Your task to perform on an android device: star an email in the gmail app Image 0: 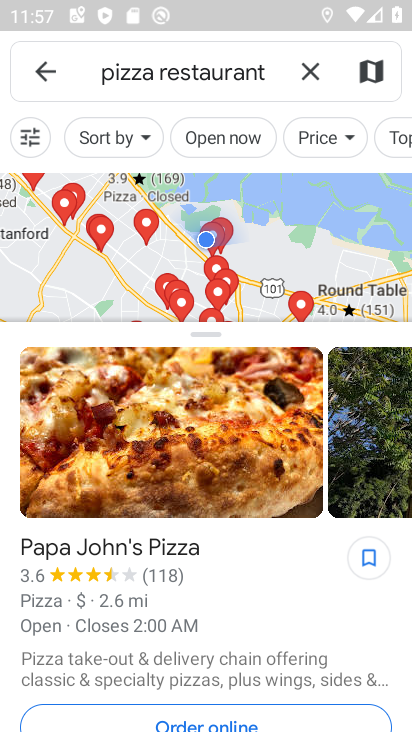
Step 0: press home button
Your task to perform on an android device: star an email in the gmail app Image 1: 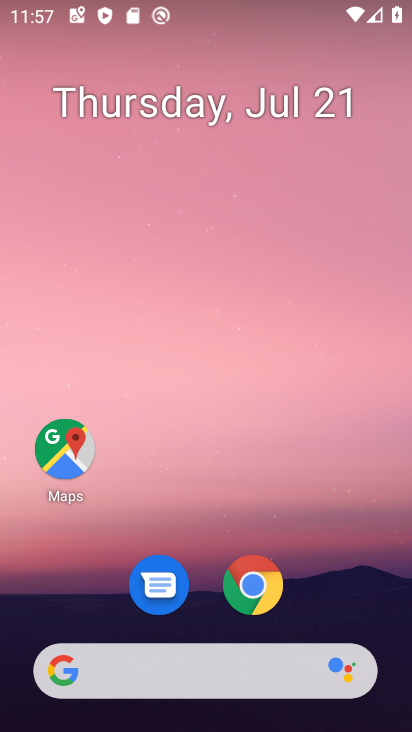
Step 1: drag from (203, 658) to (312, 122)
Your task to perform on an android device: star an email in the gmail app Image 2: 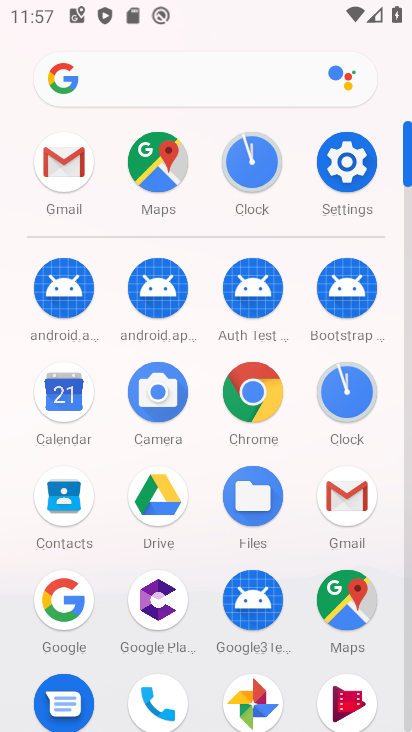
Step 2: click (63, 170)
Your task to perform on an android device: star an email in the gmail app Image 3: 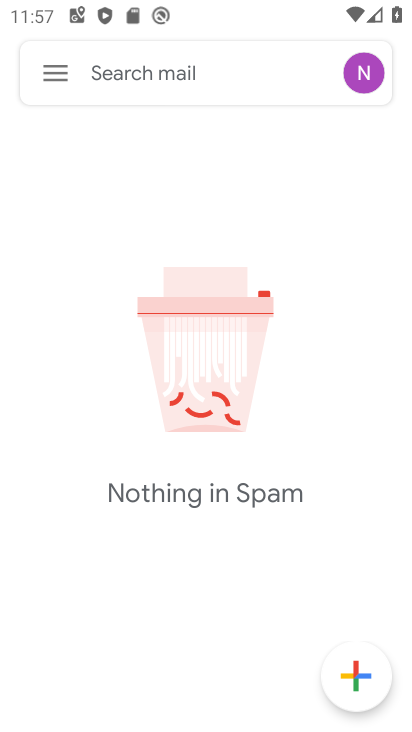
Step 3: click (48, 72)
Your task to perform on an android device: star an email in the gmail app Image 4: 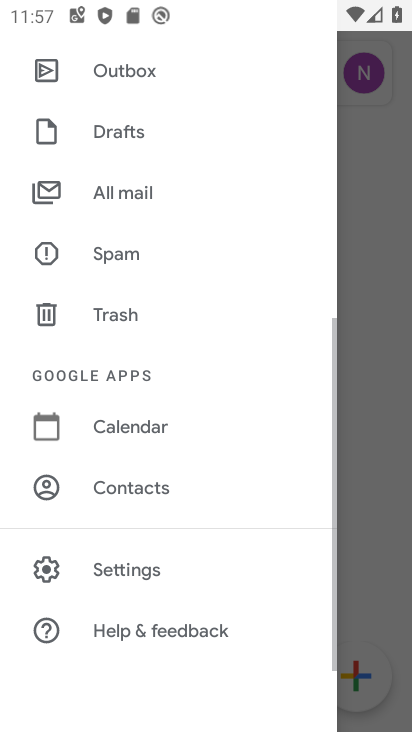
Step 4: drag from (217, 149) to (159, 559)
Your task to perform on an android device: star an email in the gmail app Image 5: 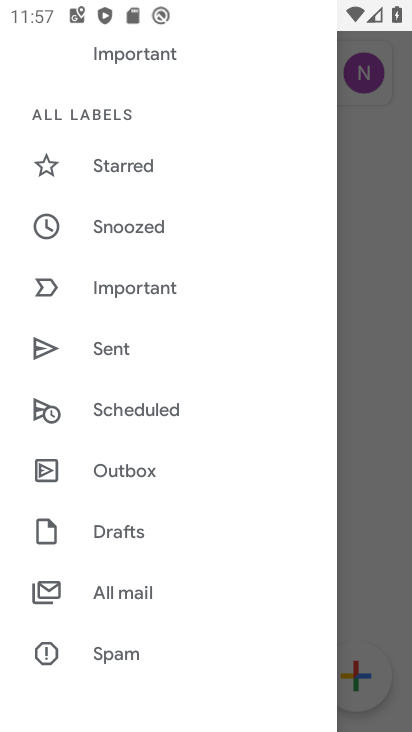
Step 5: click (129, 588)
Your task to perform on an android device: star an email in the gmail app Image 6: 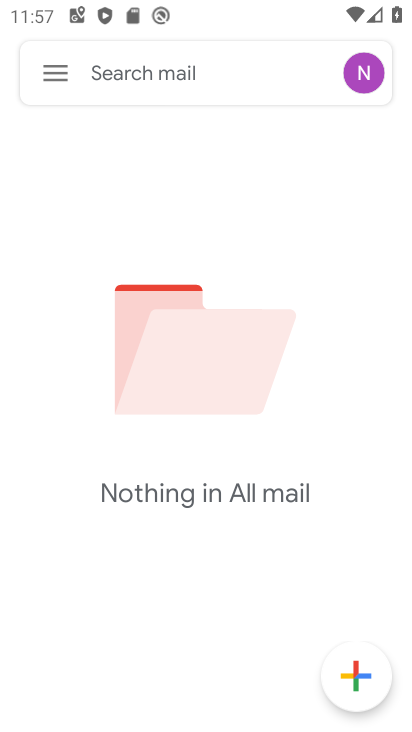
Step 6: task complete